Your task to perform on an android device: Add "logitech g pro" to the cart on ebay Image 0: 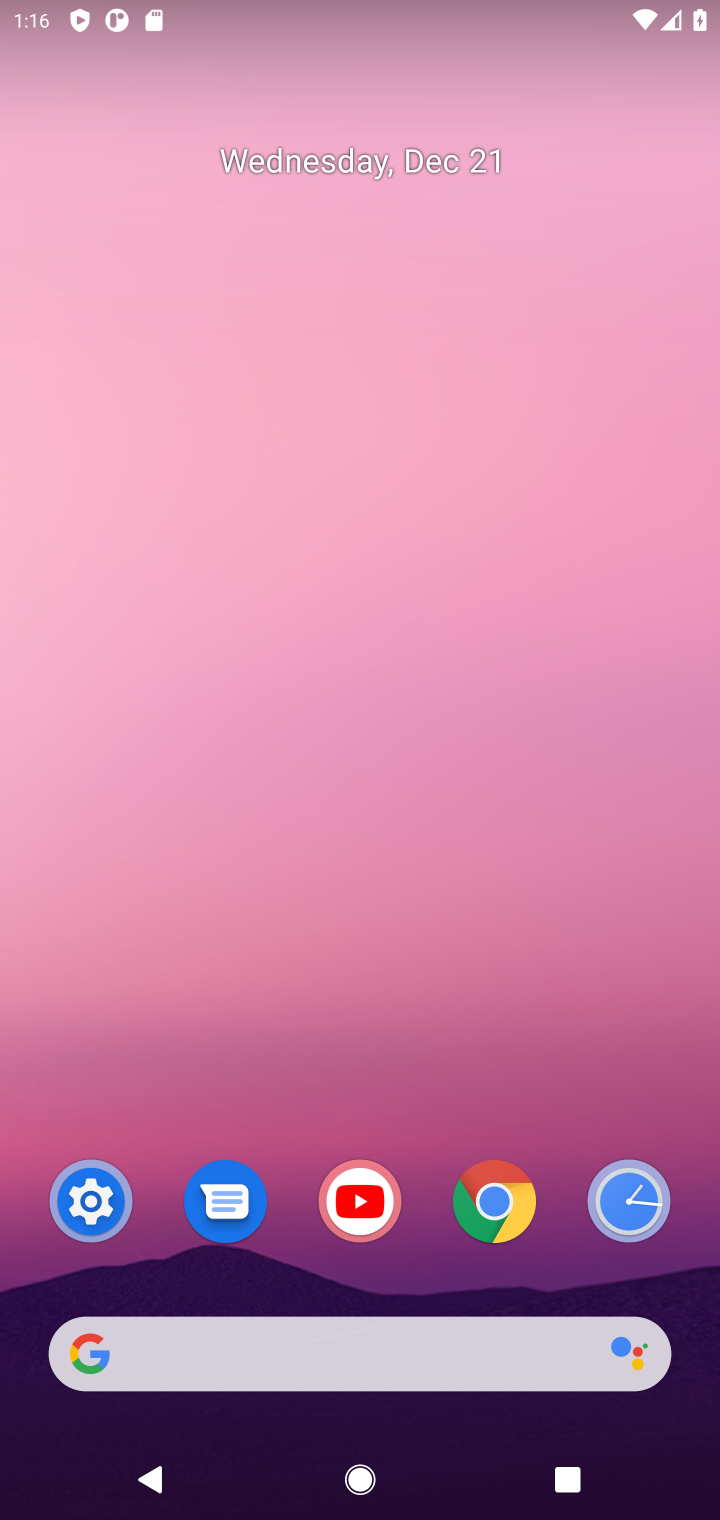
Step 0: click (485, 1214)
Your task to perform on an android device: Add "logitech g pro" to the cart on ebay Image 1: 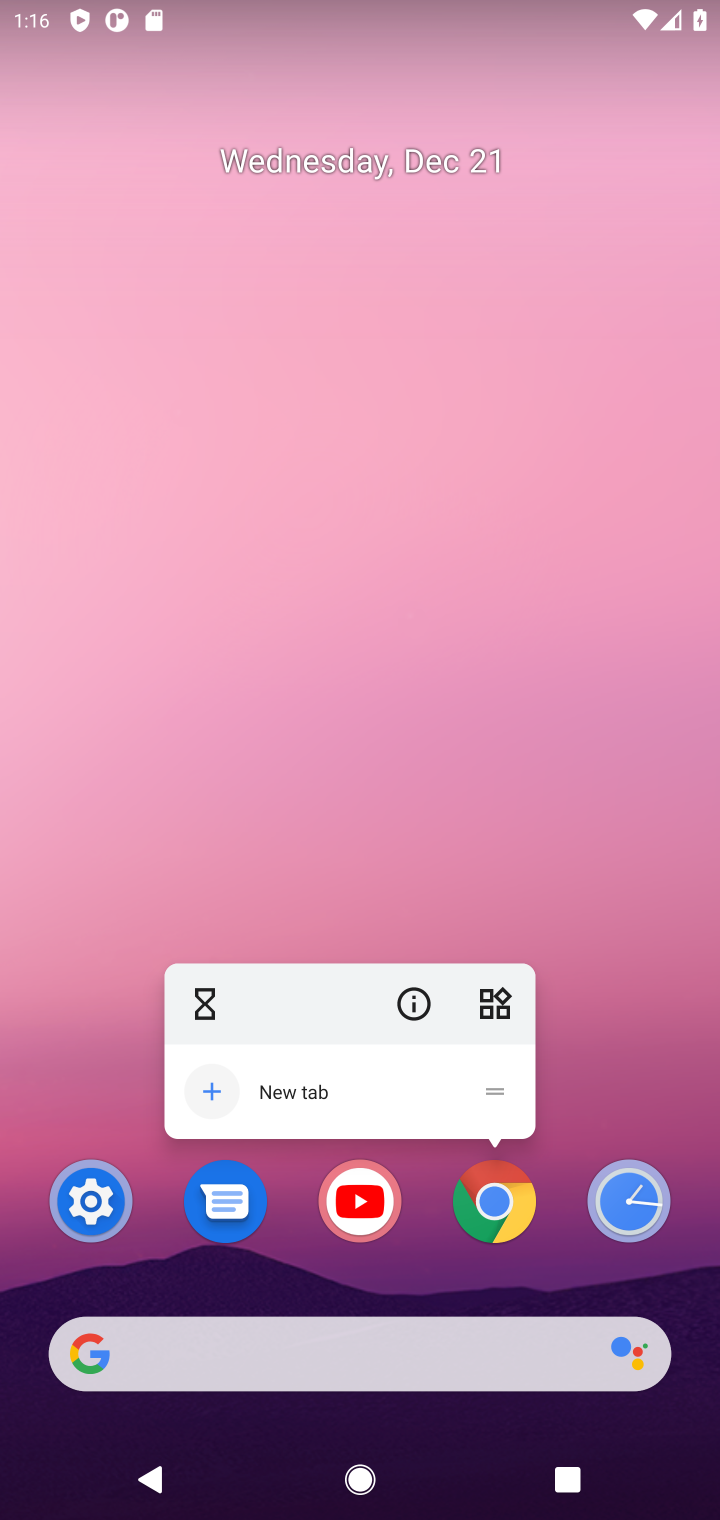
Step 1: click (489, 1214)
Your task to perform on an android device: Add "logitech g pro" to the cart on ebay Image 2: 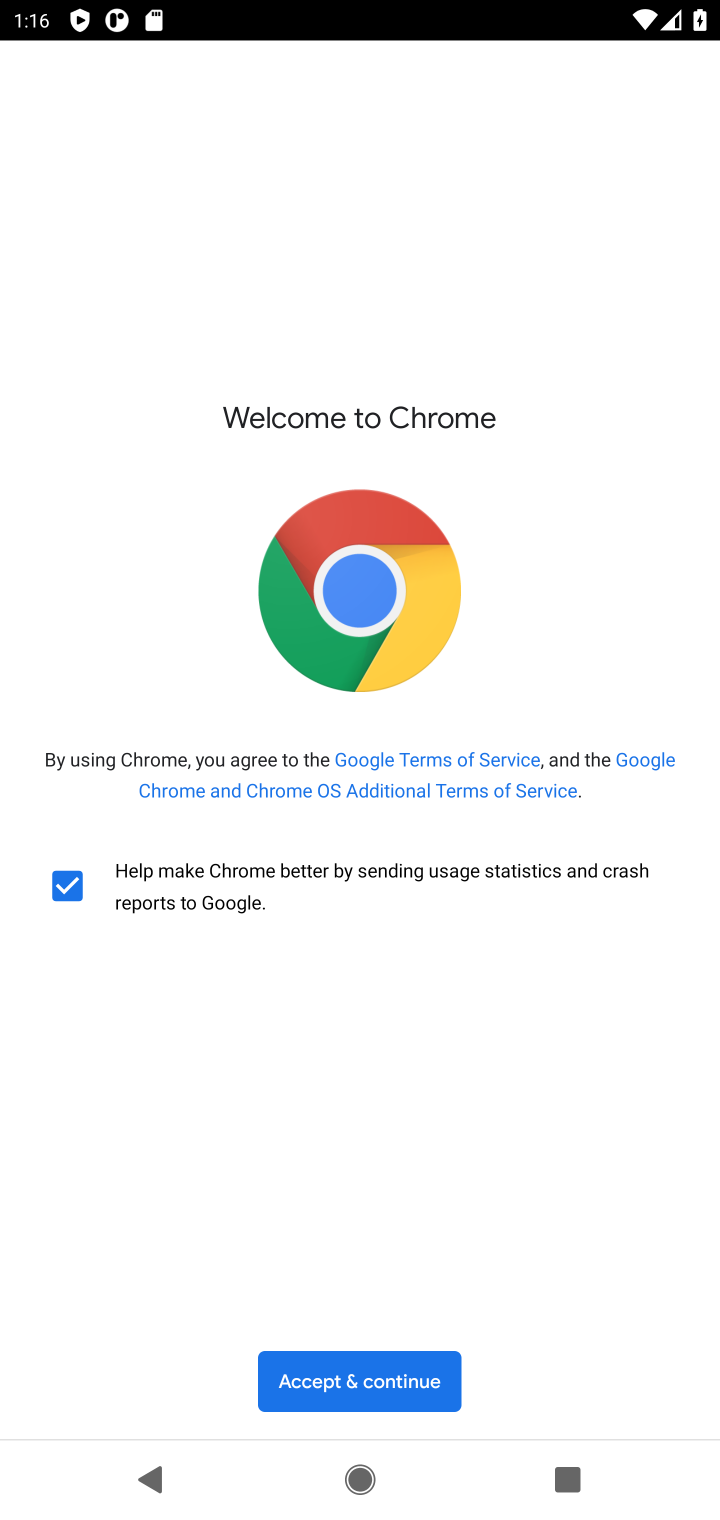
Step 2: click (297, 1373)
Your task to perform on an android device: Add "logitech g pro" to the cart on ebay Image 3: 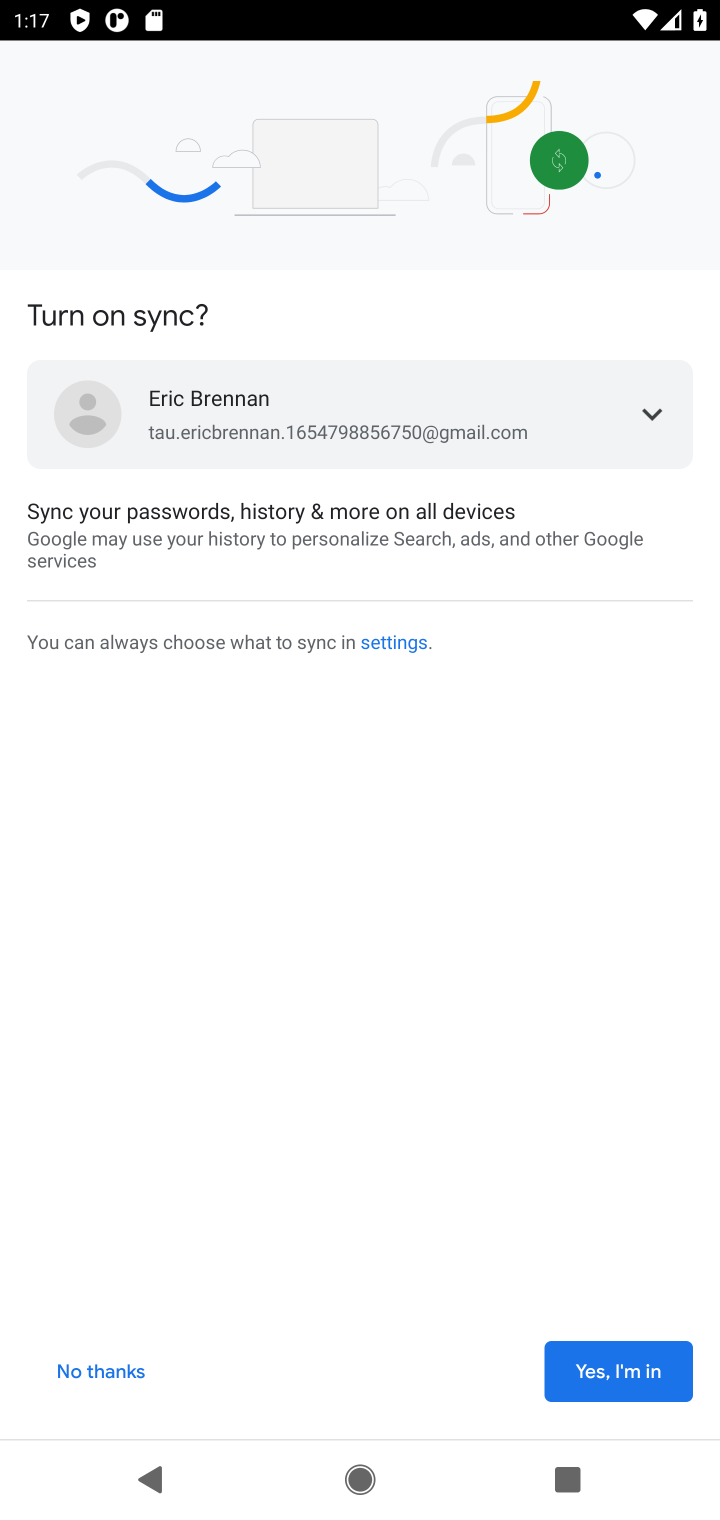
Step 3: click (87, 1370)
Your task to perform on an android device: Add "logitech g pro" to the cart on ebay Image 4: 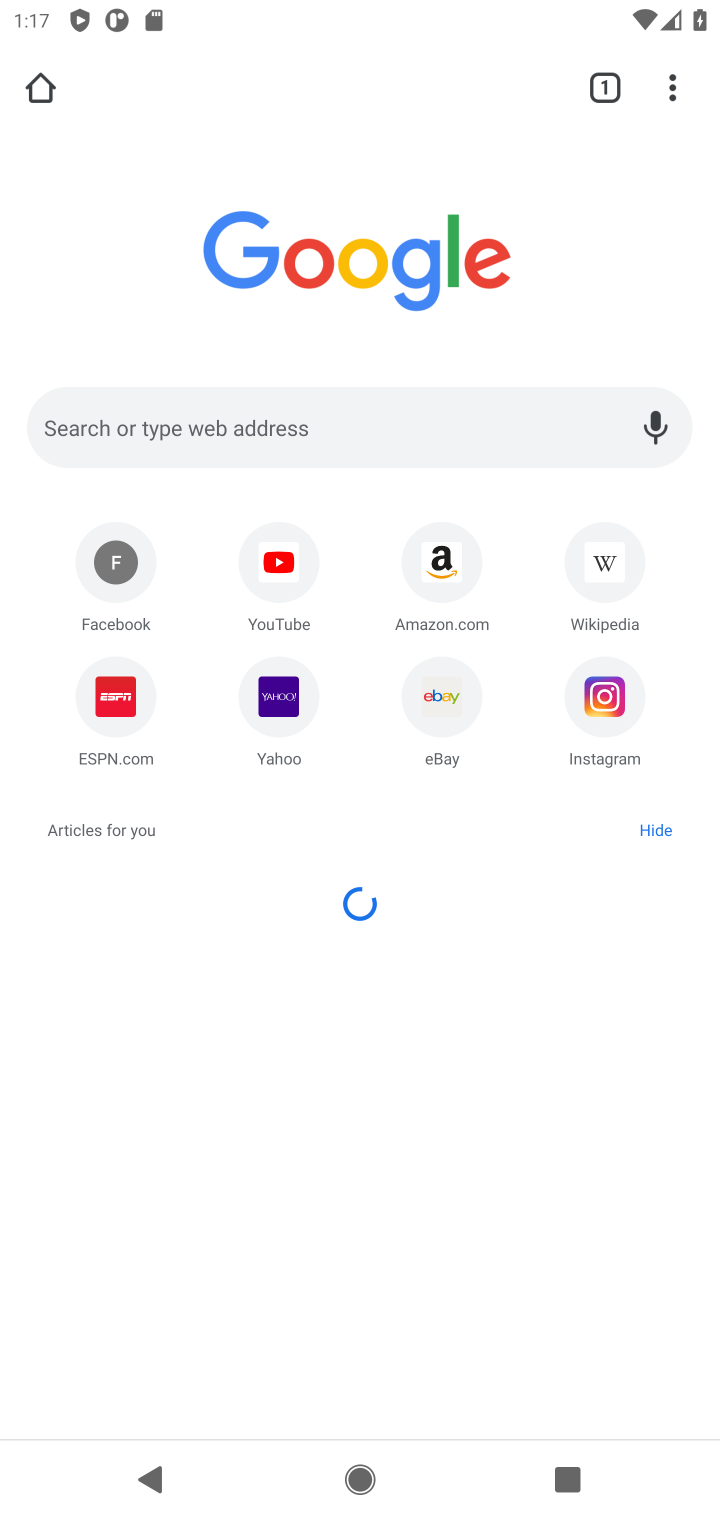
Step 4: click (431, 700)
Your task to perform on an android device: Add "logitech g pro" to the cart on ebay Image 5: 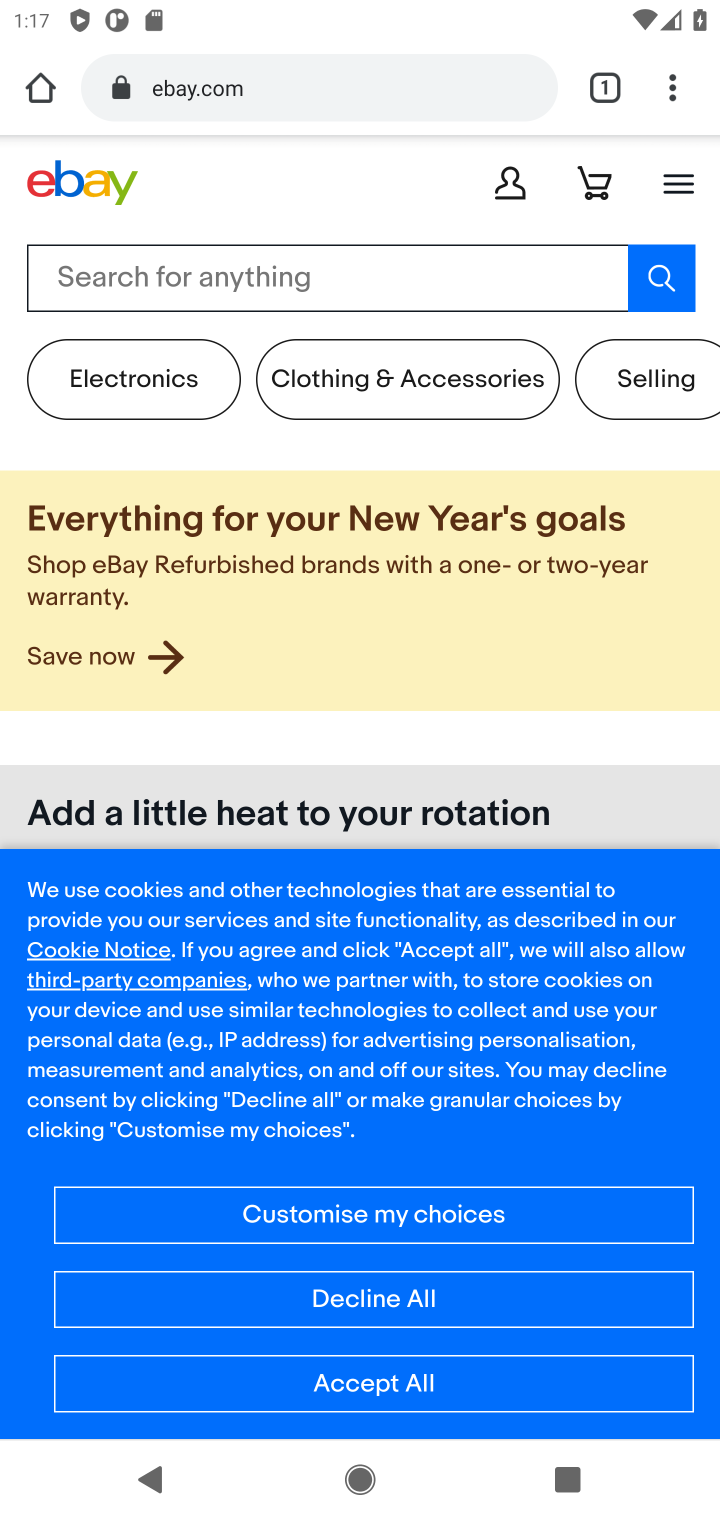
Step 5: click (230, 260)
Your task to perform on an android device: Add "logitech g pro" to the cart on ebay Image 6: 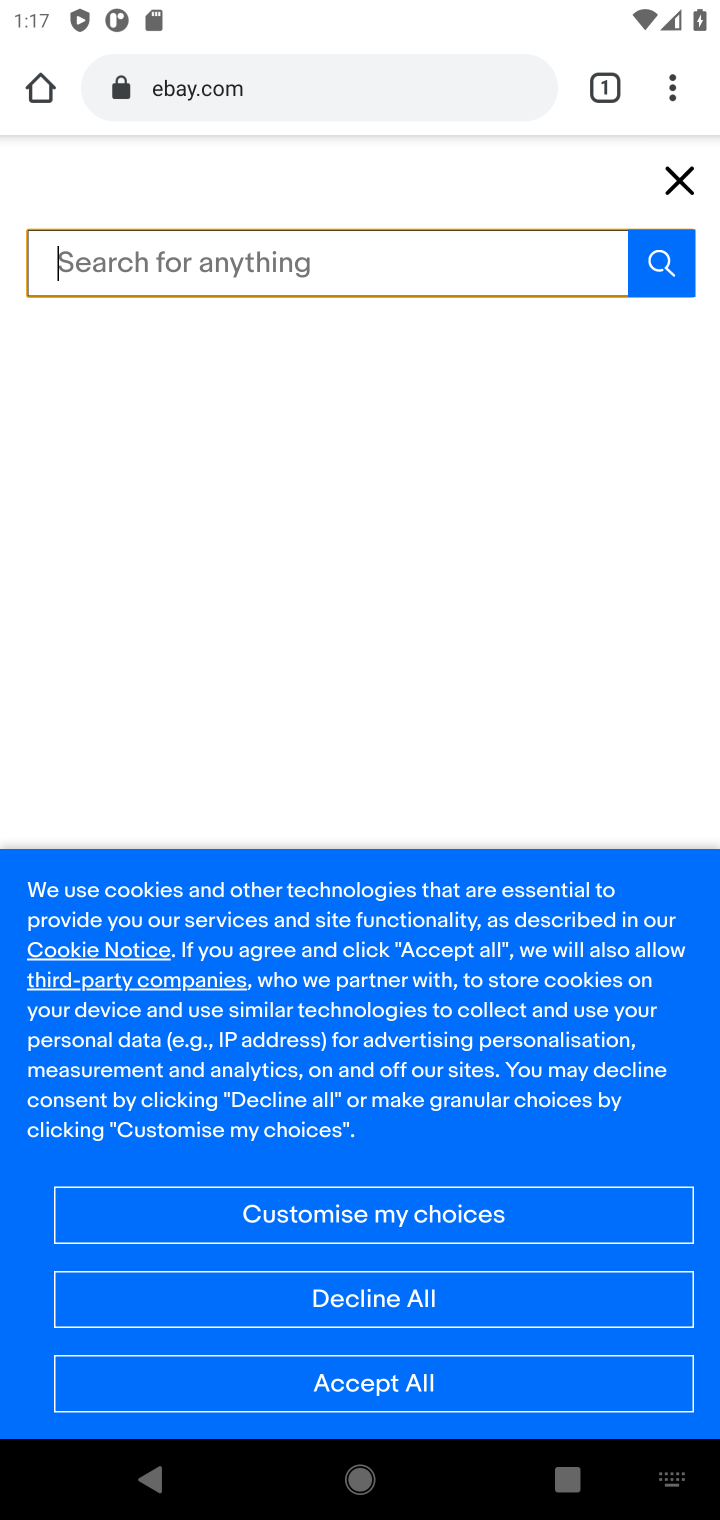
Step 6: type "logitech g pro"
Your task to perform on an android device: Add "logitech g pro" to the cart on ebay Image 7: 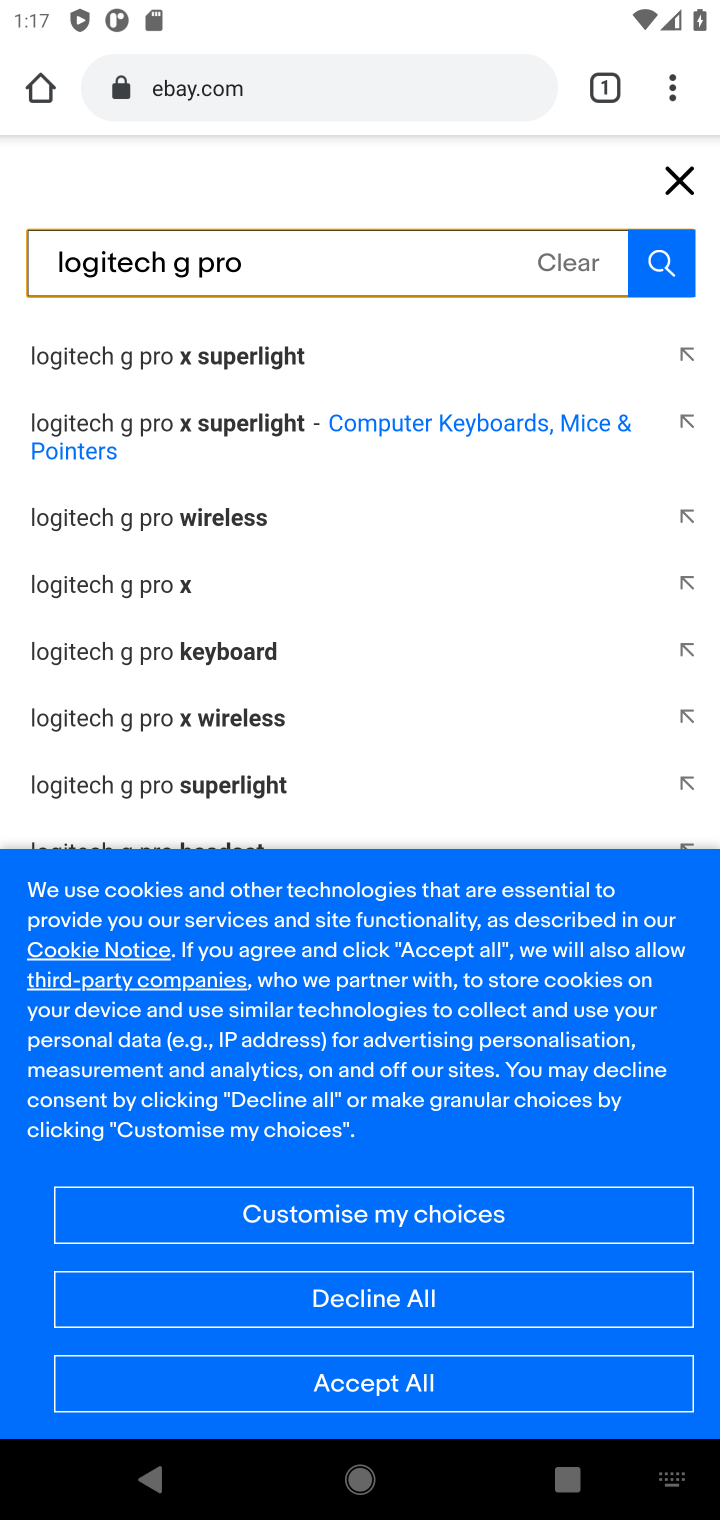
Step 7: click (669, 276)
Your task to perform on an android device: Add "logitech g pro" to the cart on ebay Image 8: 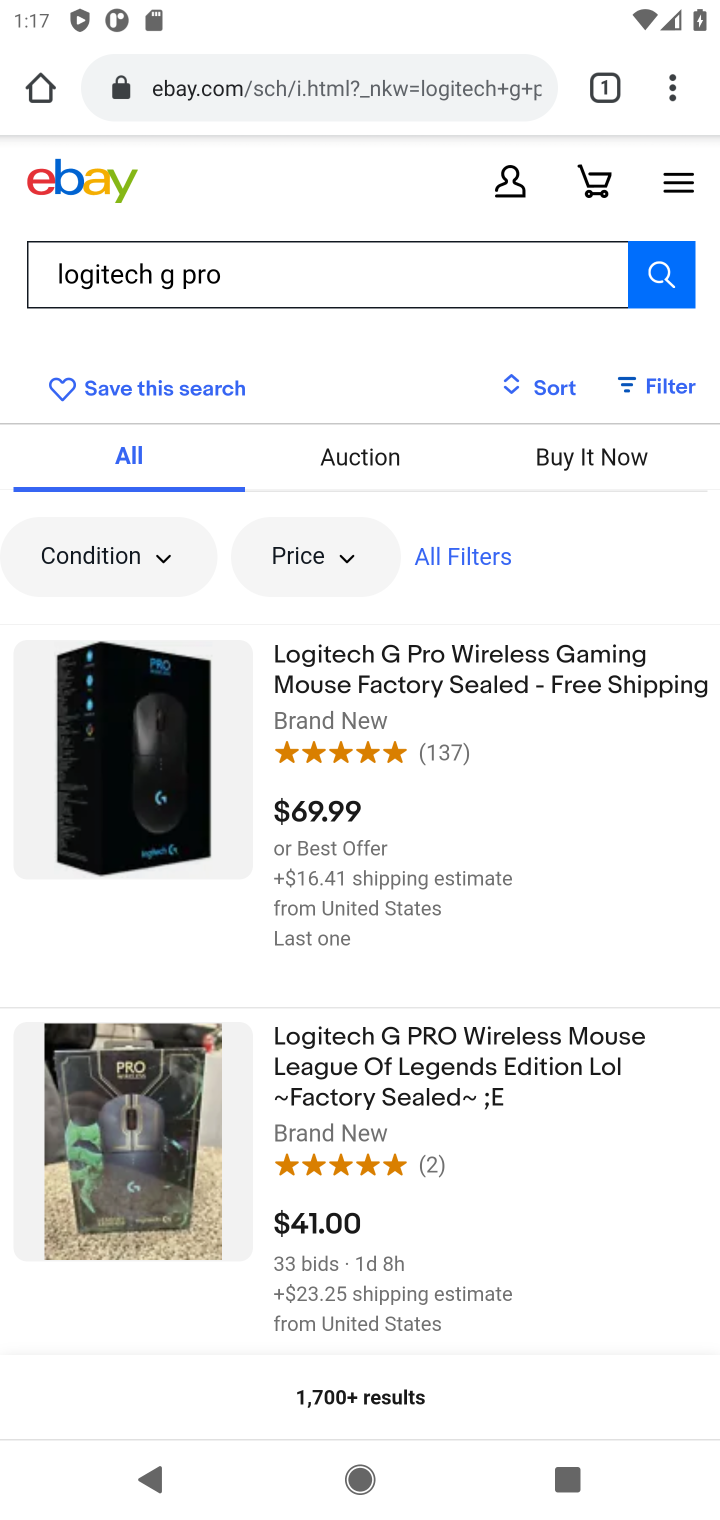
Step 8: click (290, 713)
Your task to perform on an android device: Add "logitech g pro" to the cart on ebay Image 9: 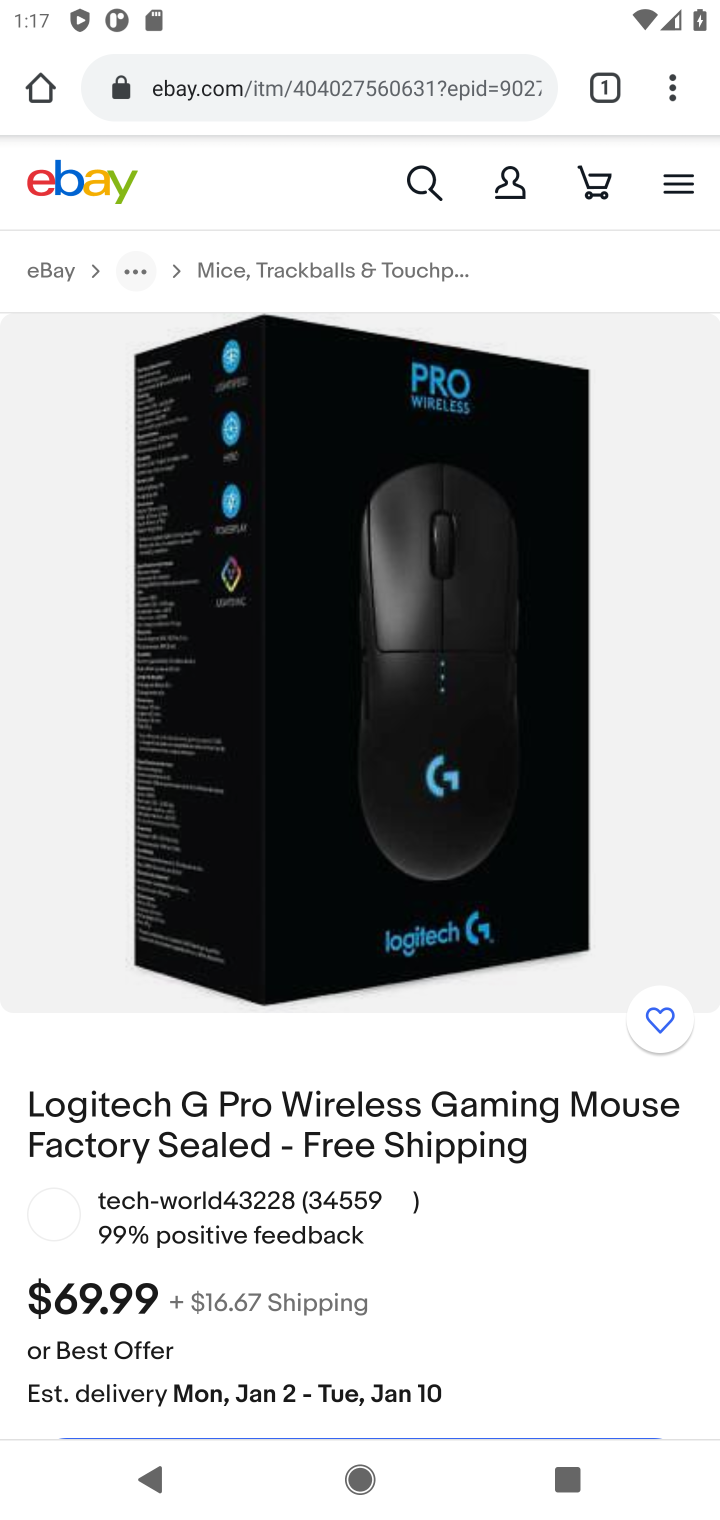
Step 9: drag from (300, 1055) to (257, 616)
Your task to perform on an android device: Add "logitech g pro" to the cart on ebay Image 10: 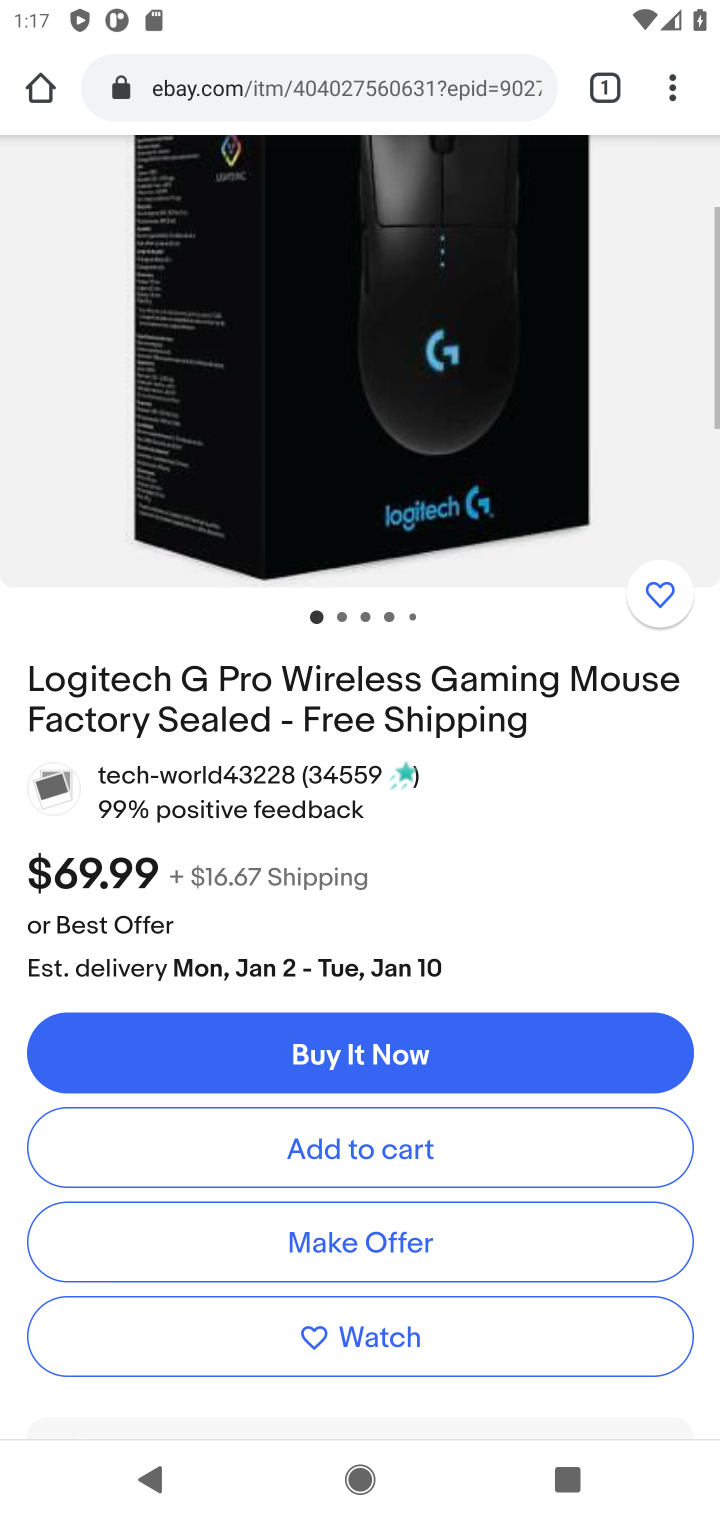
Step 10: drag from (385, 1125) to (354, 501)
Your task to perform on an android device: Add "logitech g pro" to the cart on ebay Image 11: 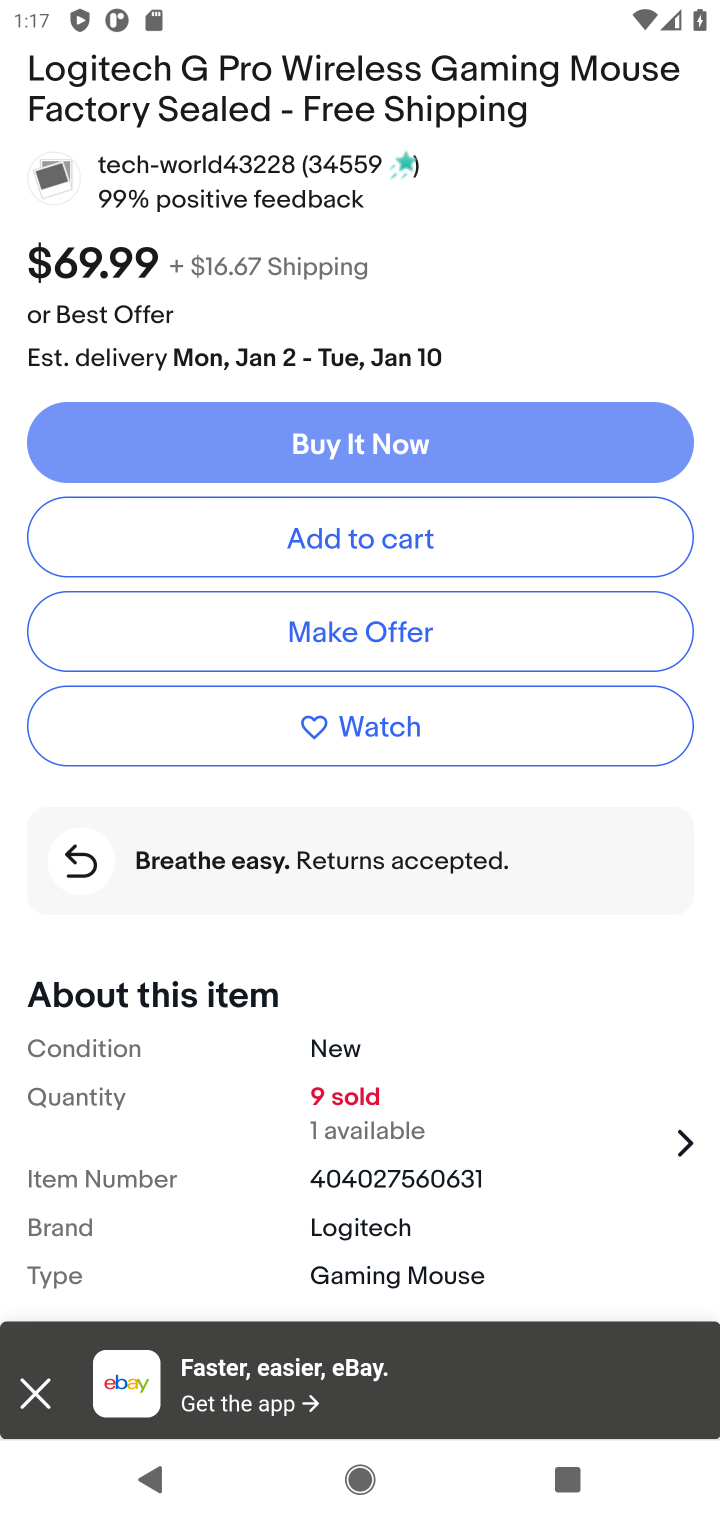
Step 11: click (326, 530)
Your task to perform on an android device: Add "logitech g pro" to the cart on ebay Image 12: 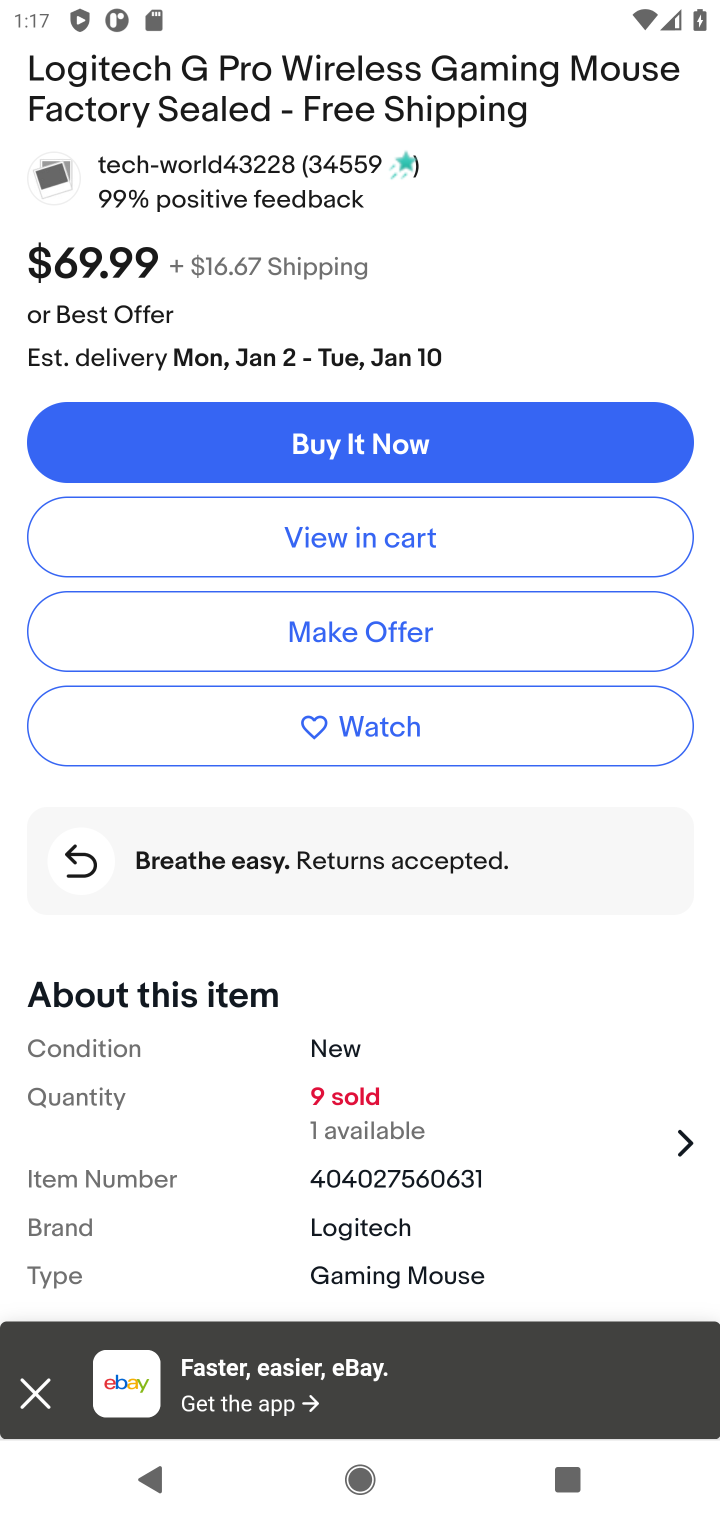
Step 12: task complete